Your task to perform on an android device: turn off airplane mode Image 0: 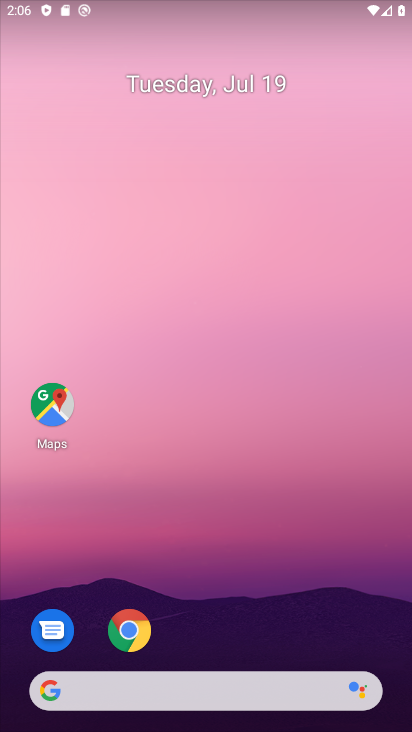
Step 0: drag from (251, 630) to (301, 38)
Your task to perform on an android device: turn off airplane mode Image 1: 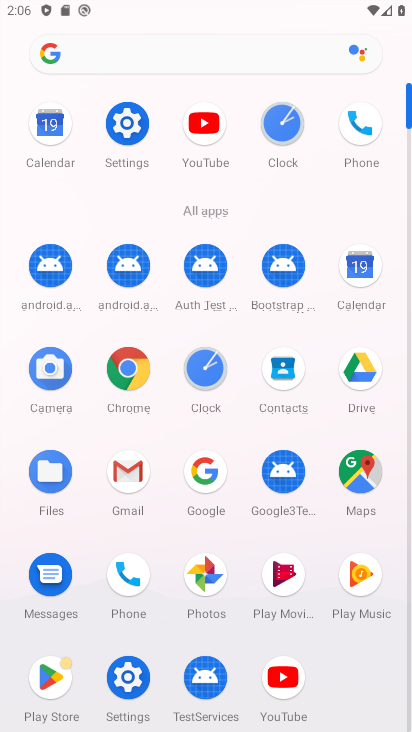
Step 1: click (125, 114)
Your task to perform on an android device: turn off airplane mode Image 2: 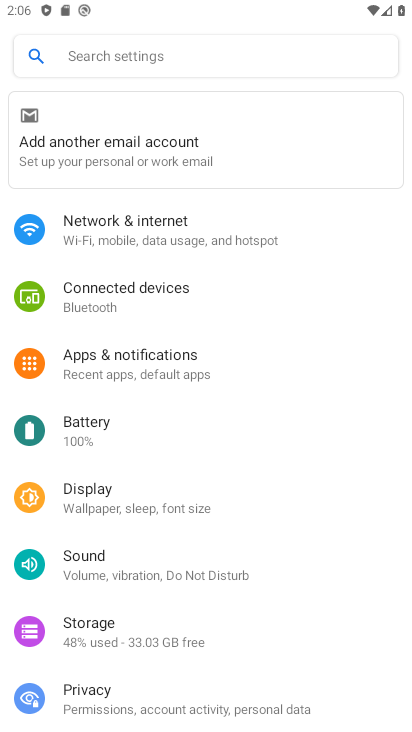
Step 2: click (148, 226)
Your task to perform on an android device: turn off airplane mode Image 3: 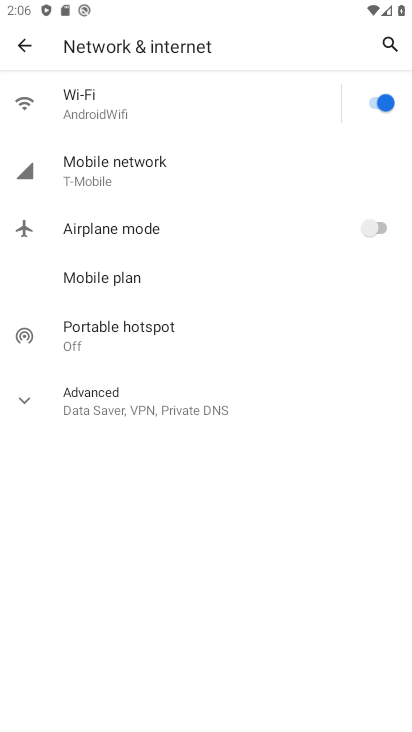
Step 3: task complete